Your task to perform on an android device: Check the settings for the Google Play Music app Image 0: 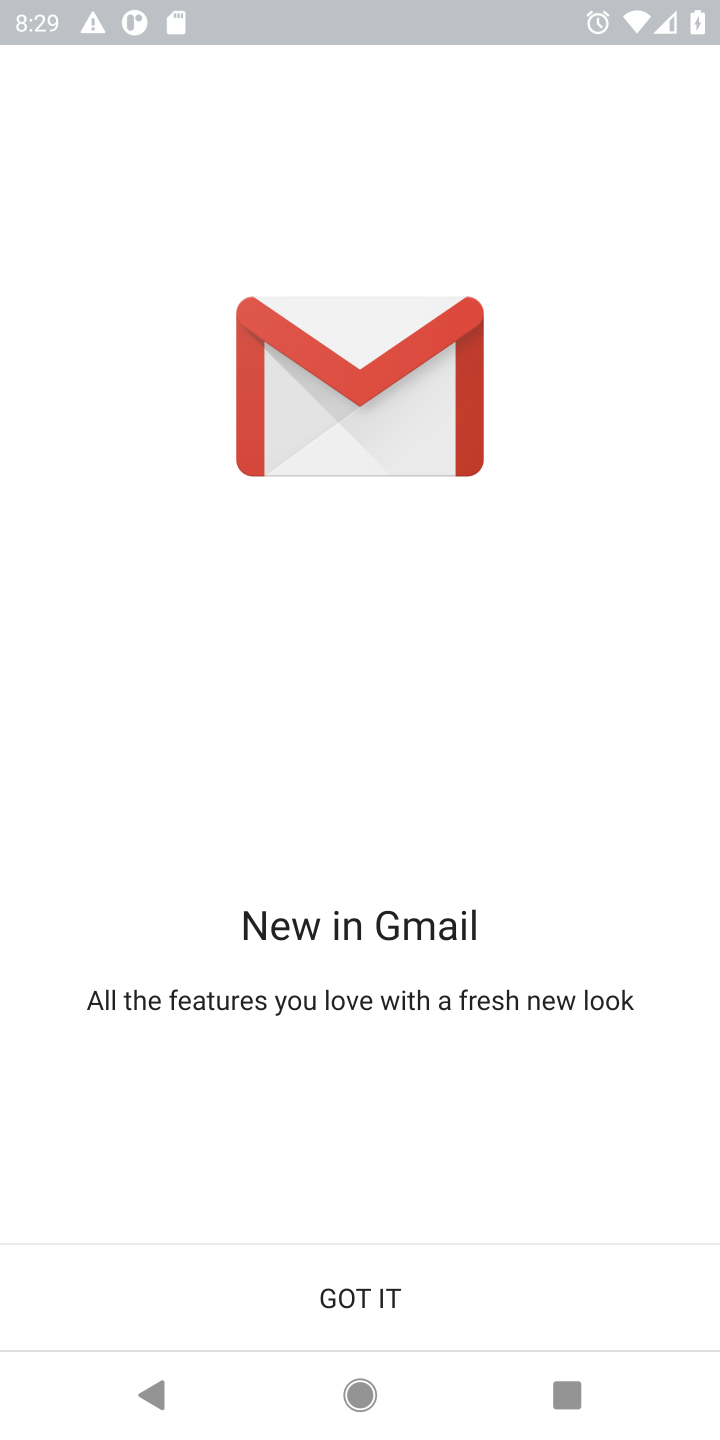
Step 0: press home button
Your task to perform on an android device: Check the settings for the Google Play Music app Image 1: 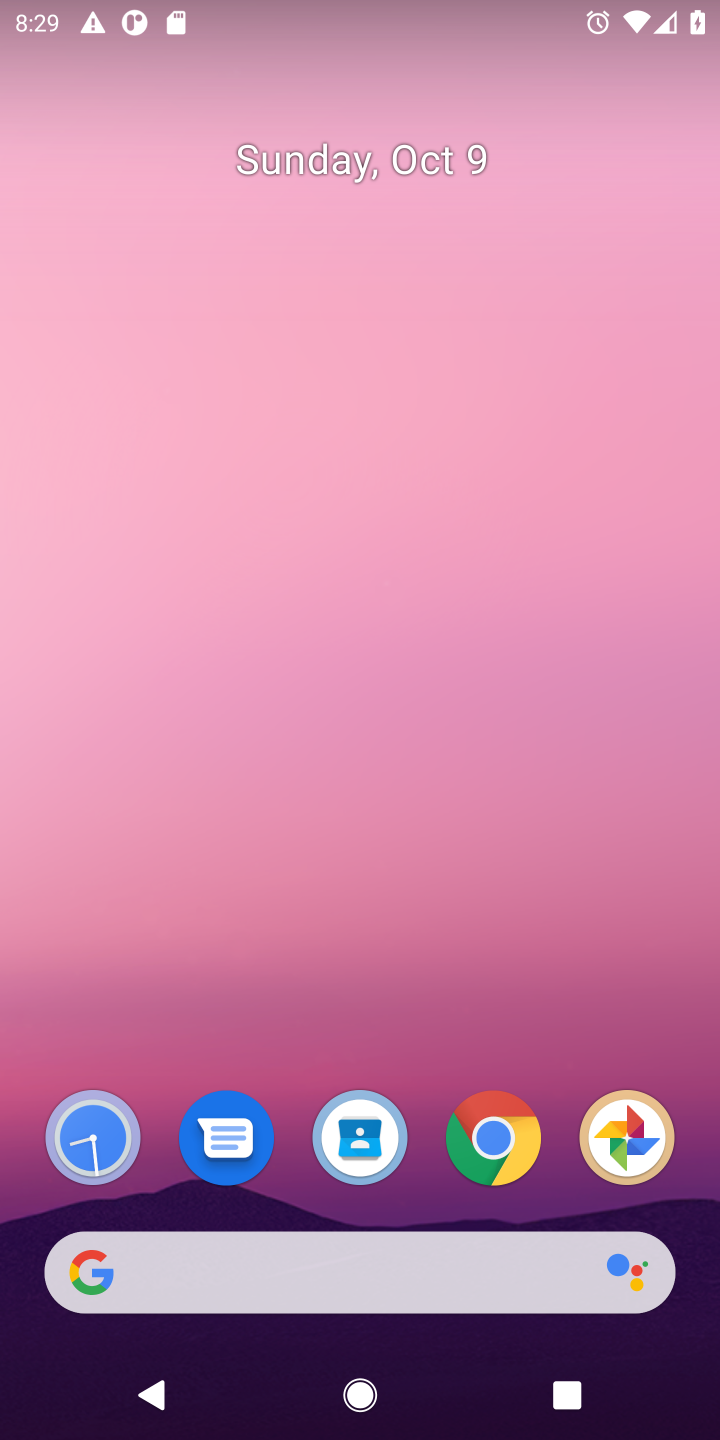
Step 1: drag from (378, 1185) to (378, 418)
Your task to perform on an android device: Check the settings for the Google Play Music app Image 2: 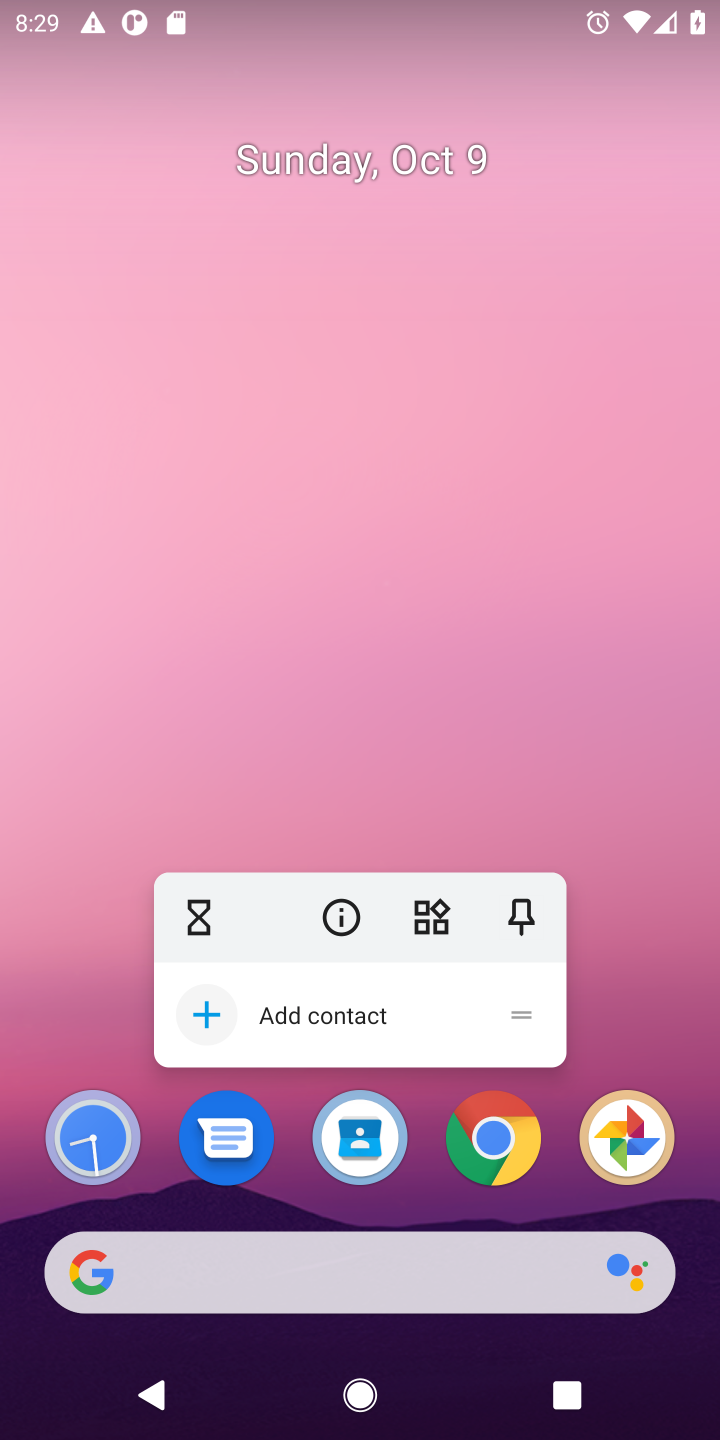
Step 2: click (425, 585)
Your task to perform on an android device: Check the settings for the Google Play Music app Image 3: 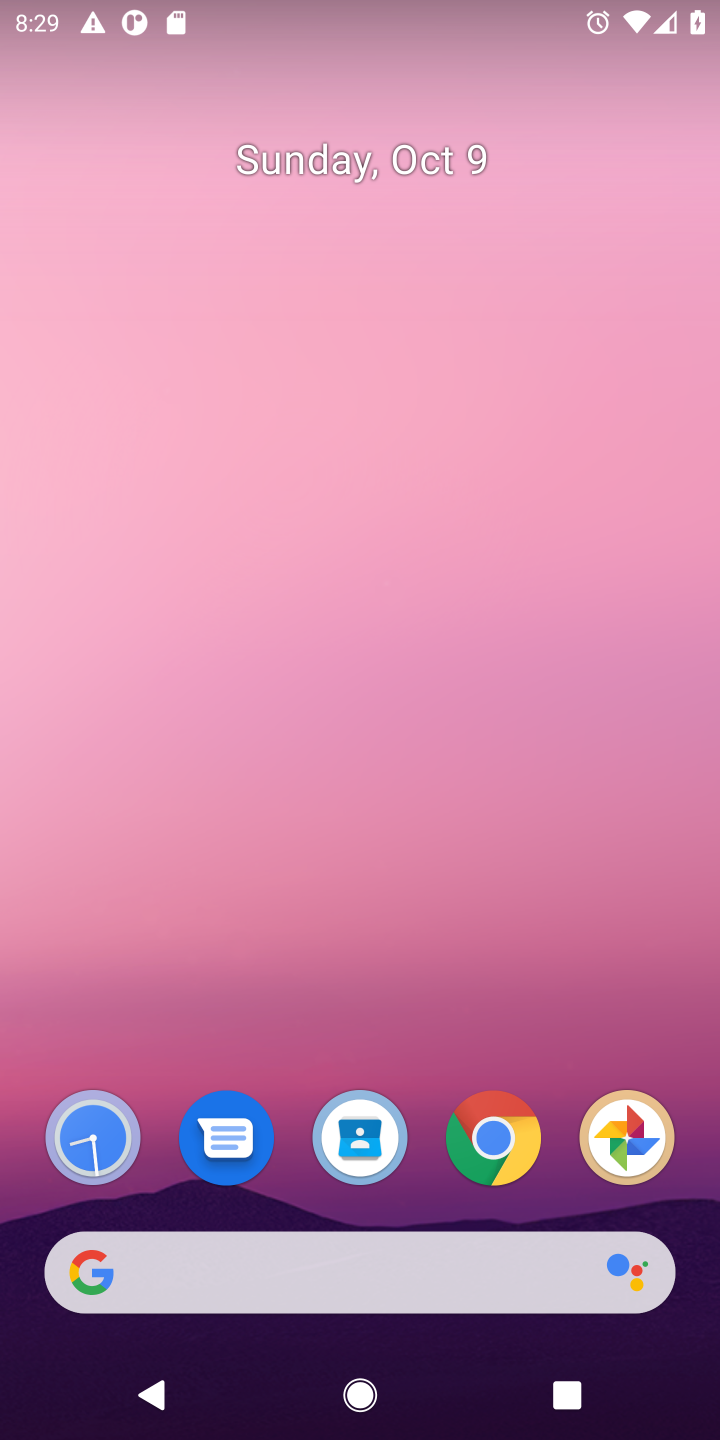
Step 3: drag from (406, 1141) to (424, 440)
Your task to perform on an android device: Check the settings for the Google Play Music app Image 4: 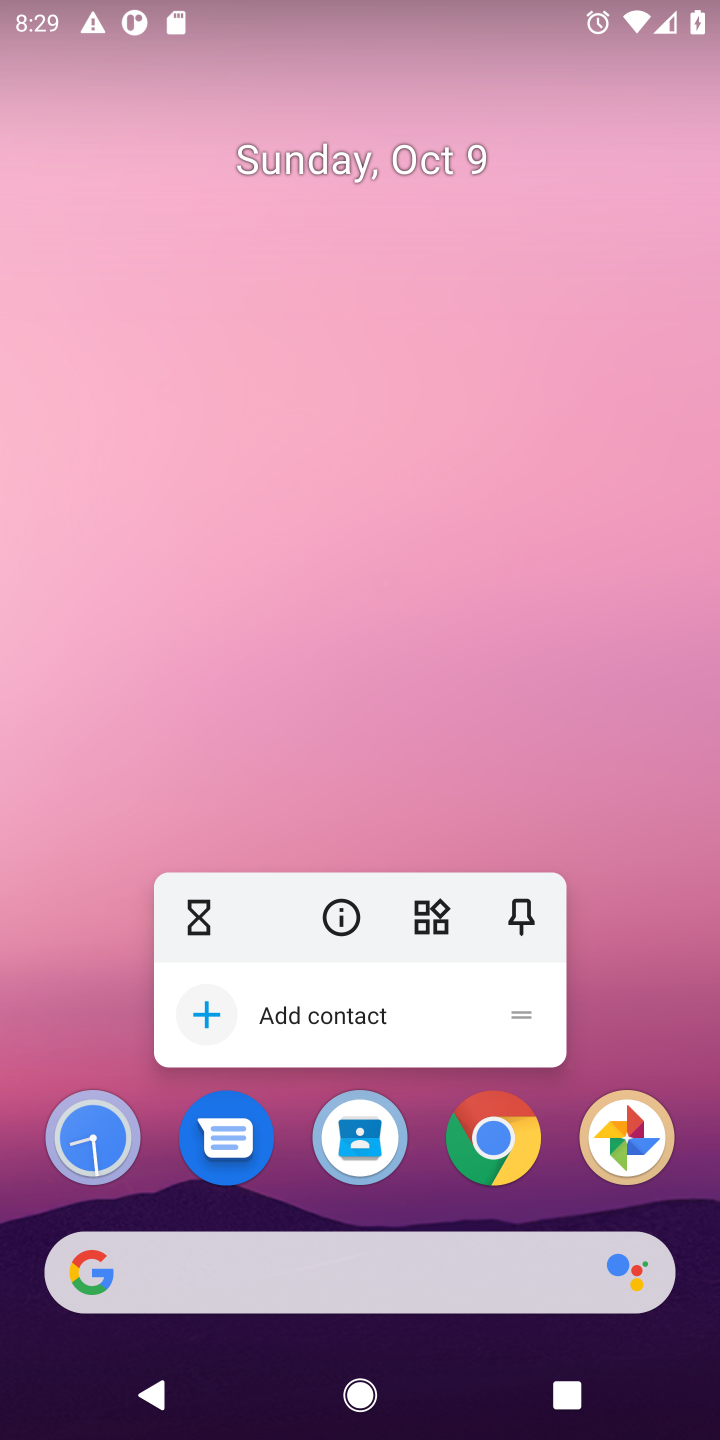
Step 4: click (503, 687)
Your task to perform on an android device: Check the settings for the Google Play Music app Image 5: 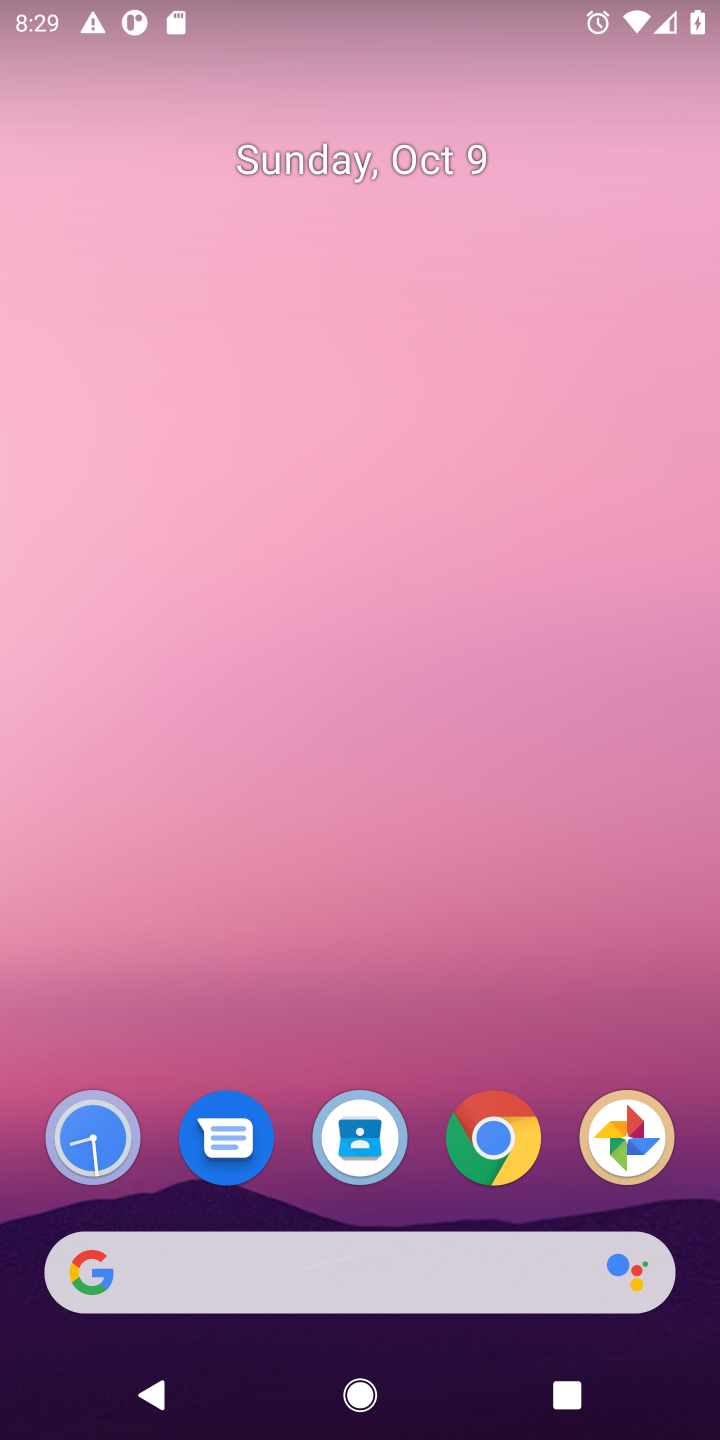
Step 5: drag from (401, 893) to (387, 165)
Your task to perform on an android device: Check the settings for the Google Play Music app Image 6: 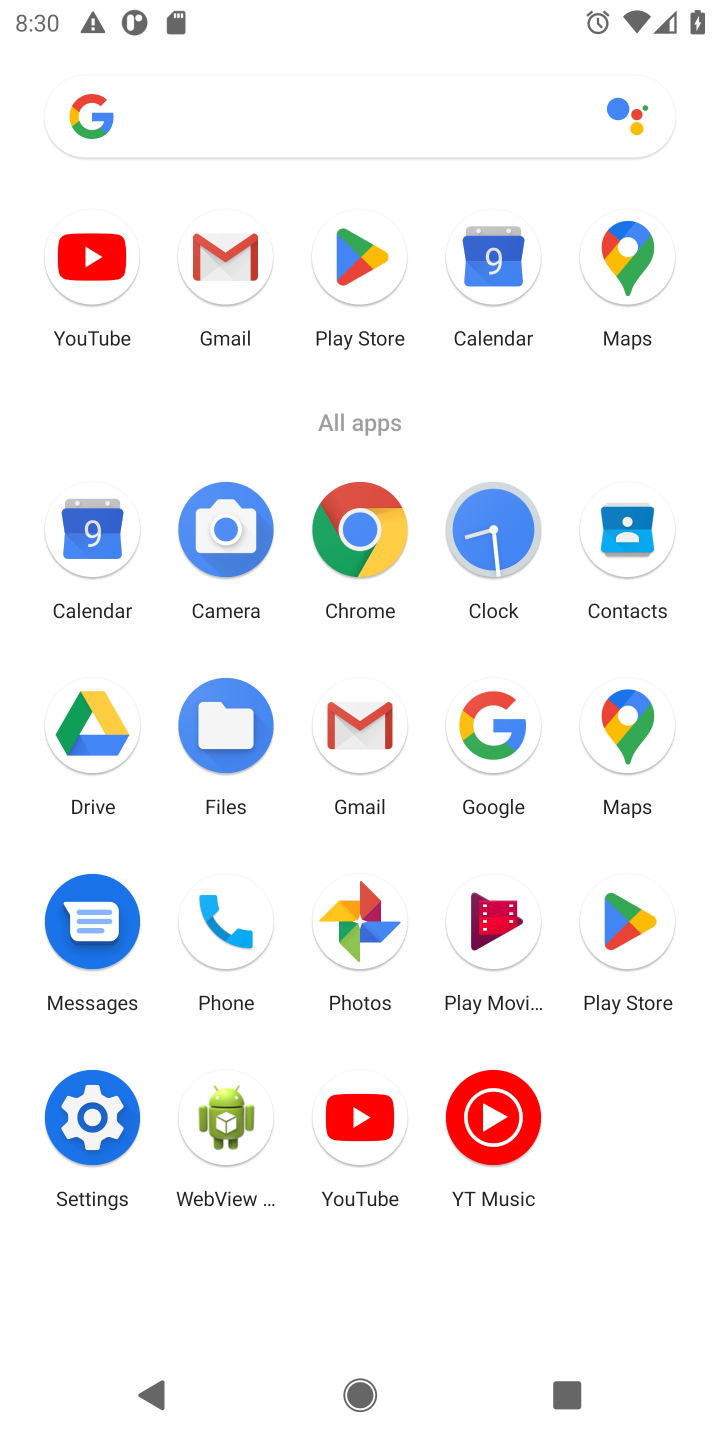
Step 6: click (472, 1101)
Your task to perform on an android device: Check the settings for the Google Play Music app Image 7: 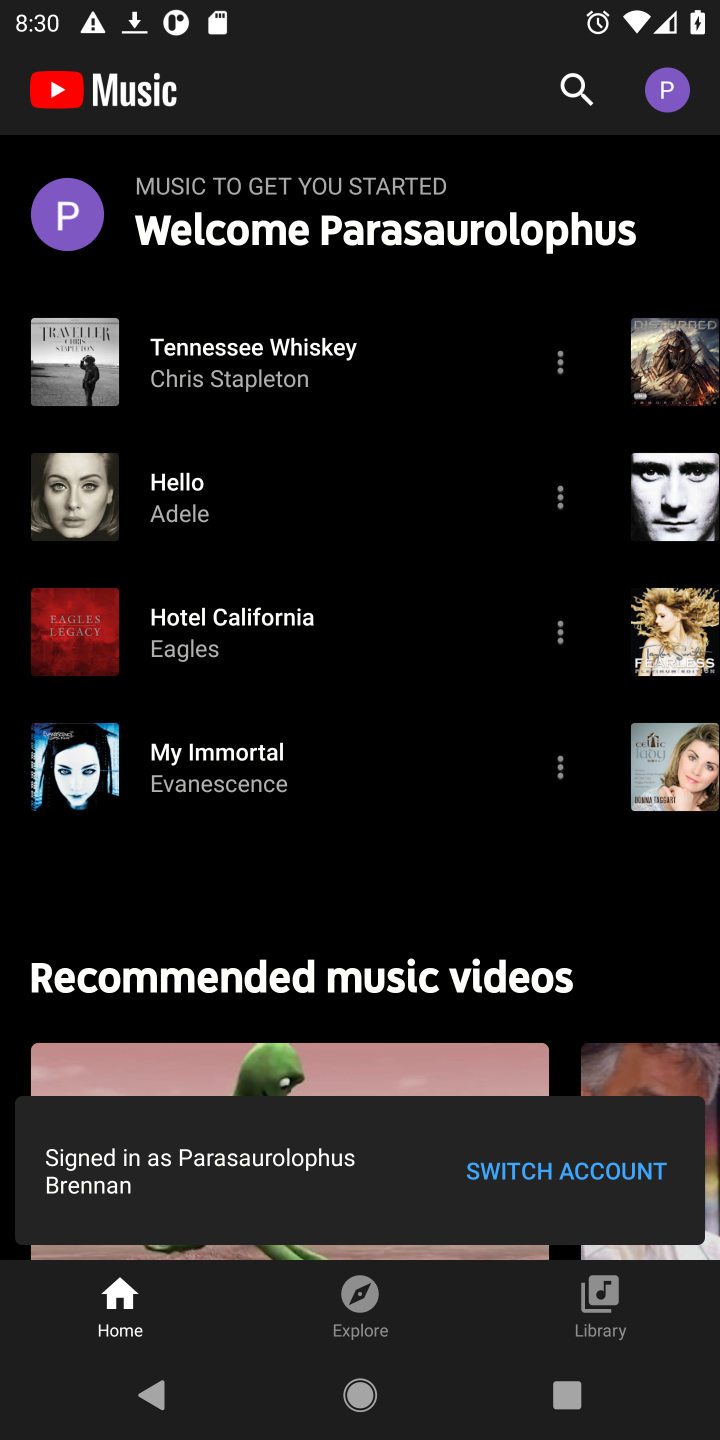
Step 7: click (650, 80)
Your task to perform on an android device: Check the settings for the Google Play Music app Image 8: 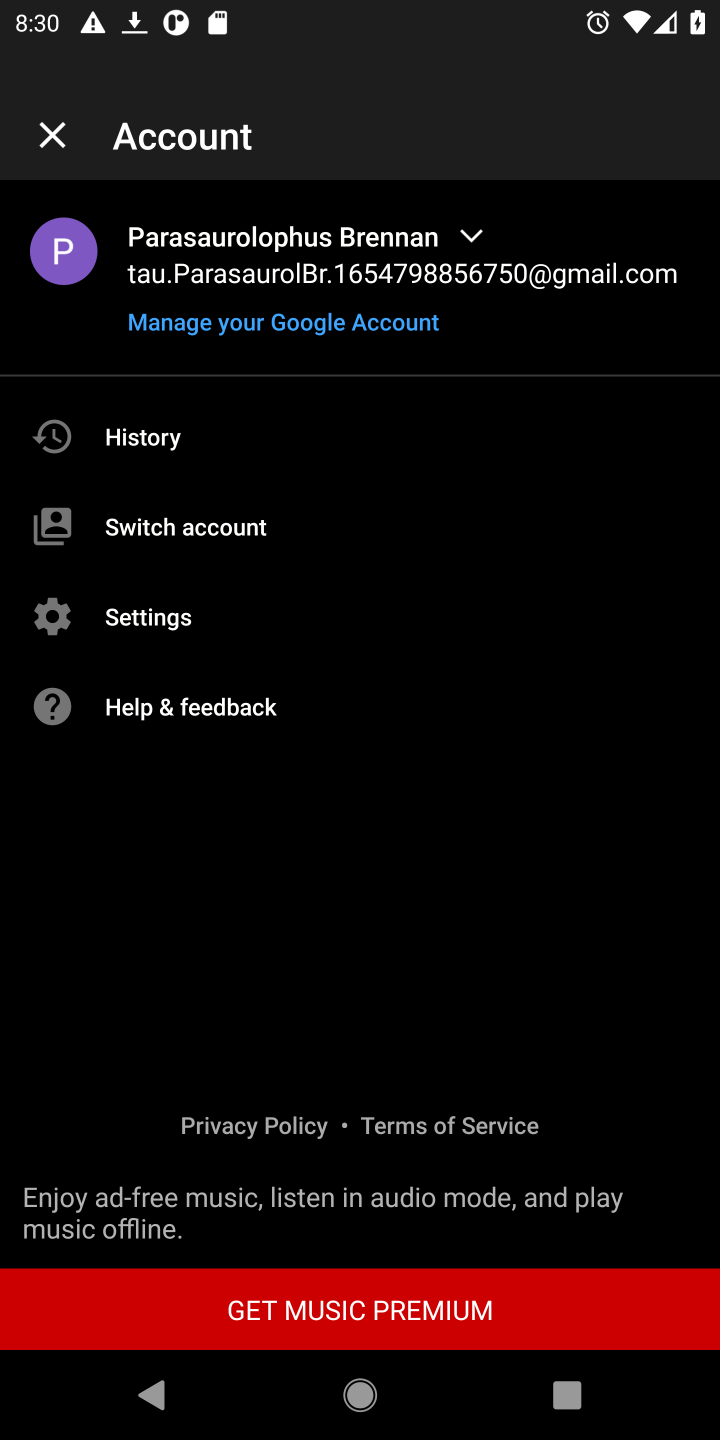
Step 8: click (171, 606)
Your task to perform on an android device: Check the settings for the Google Play Music app Image 9: 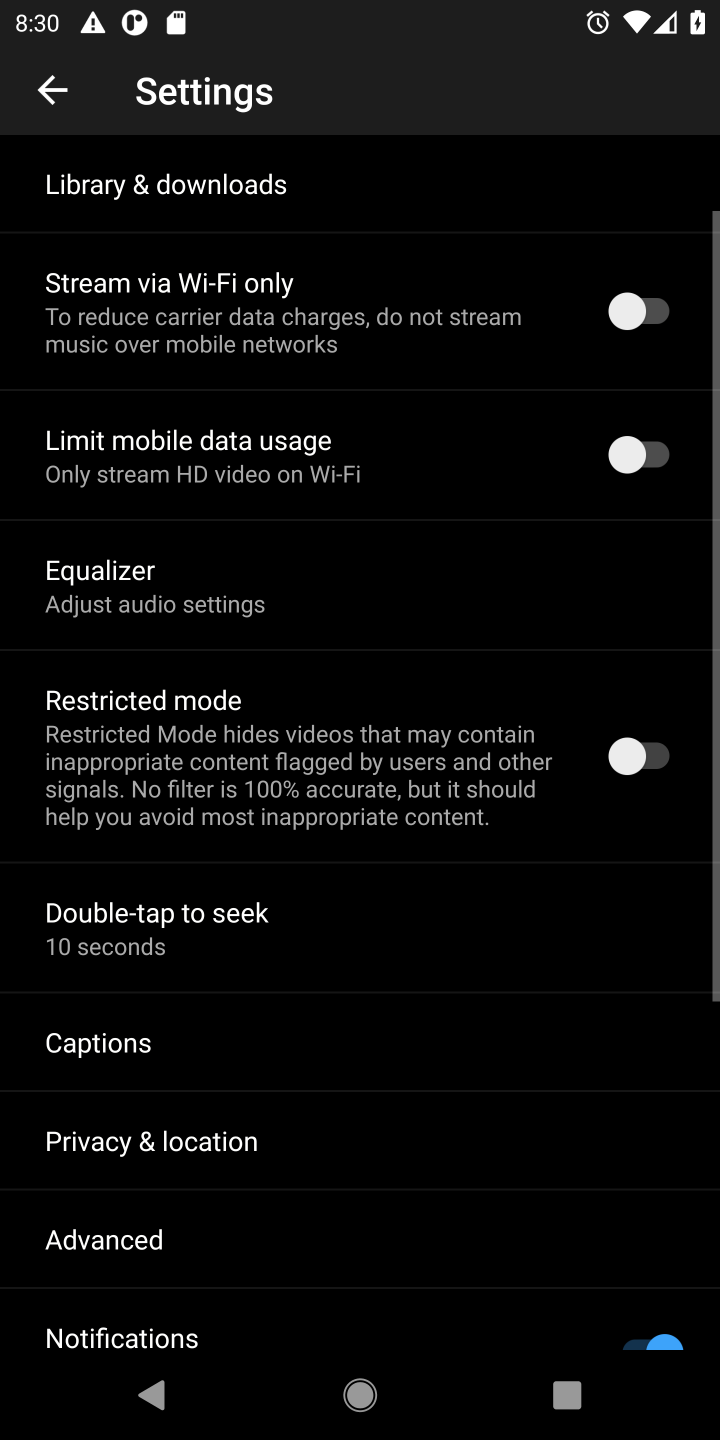
Step 9: task complete